Your task to perform on an android device: Open sound settings Image 0: 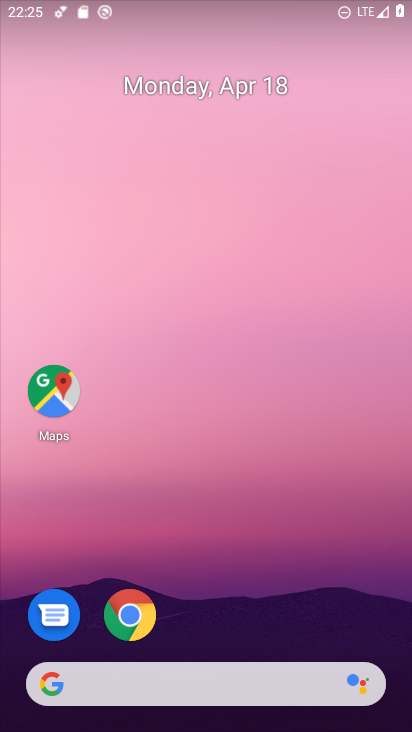
Step 0: drag from (323, 601) to (312, 47)
Your task to perform on an android device: Open sound settings Image 1: 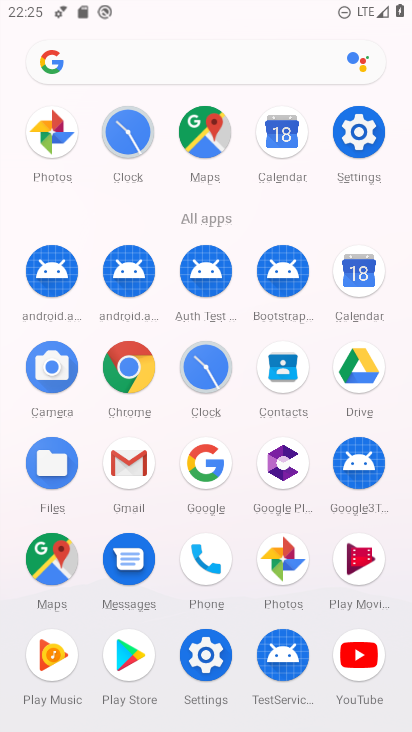
Step 1: click (355, 131)
Your task to perform on an android device: Open sound settings Image 2: 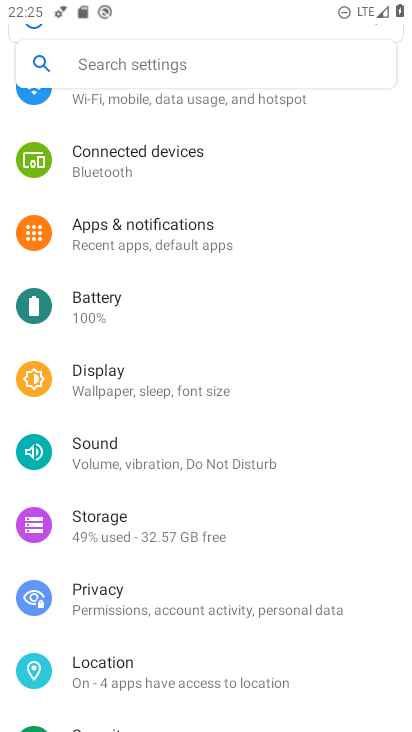
Step 2: click (86, 462)
Your task to perform on an android device: Open sound settings Image 3: 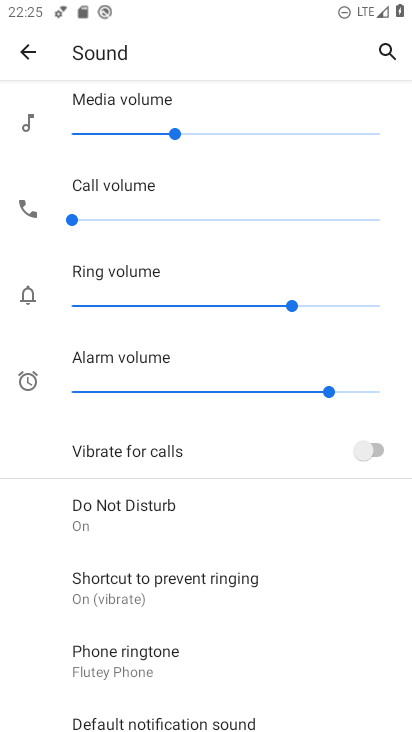
Step 3: task complete